Your task to perform on an android device: change timer sound Image 0: 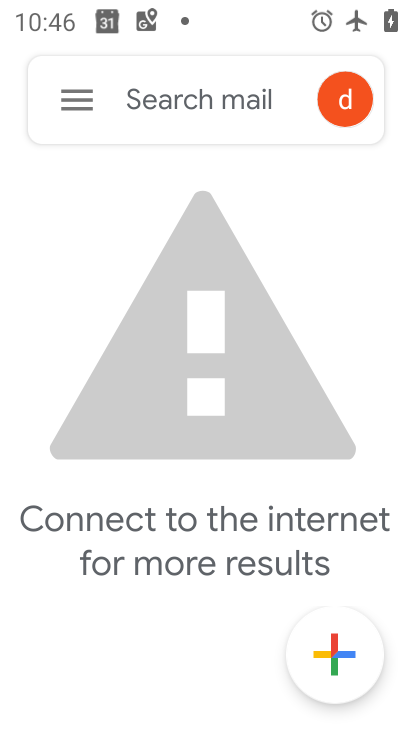
Step 0: press home button
Your task to perform on an android device: change timer sound Image 1: 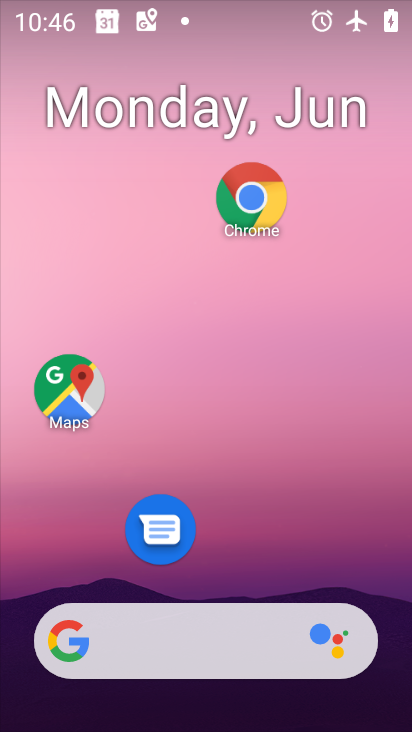
Step 1: drag from (223, 546) to (189, 129)
Your task to perform on an android device: change timer sound Image 2: 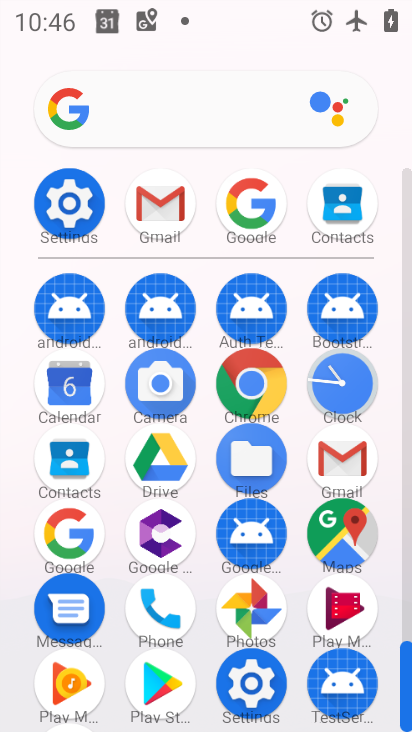
Step 2: click (358, 399)
Your task to perform on an android device: change timer sound Image 3: 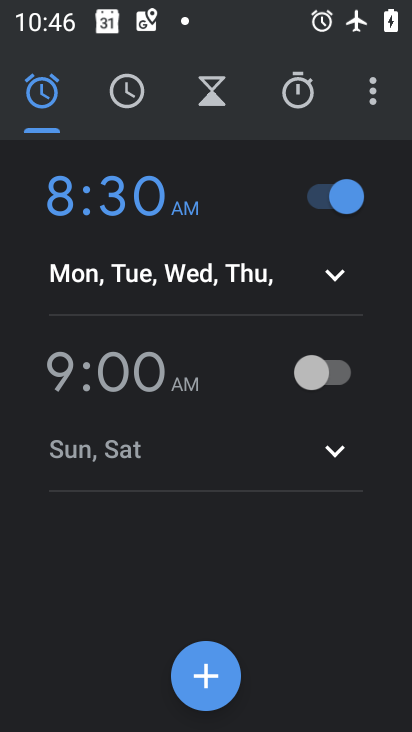
Step 3: click (363, 94)
Your task to perform on an android device: change timer sound Image 4: 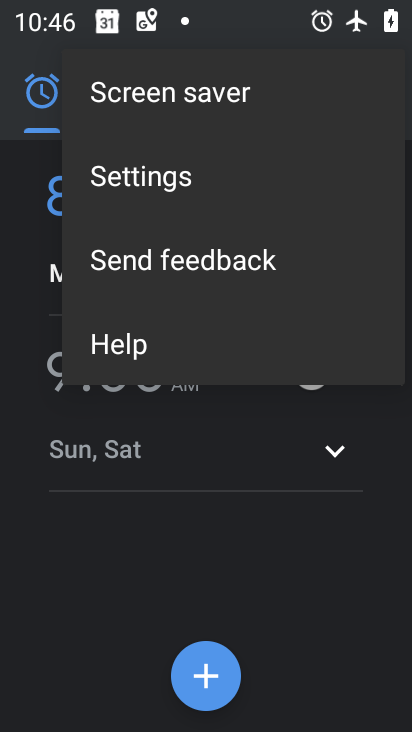
Step 4: click (190, 175)
Your task to perform on an android device: change timer sound Image 5: 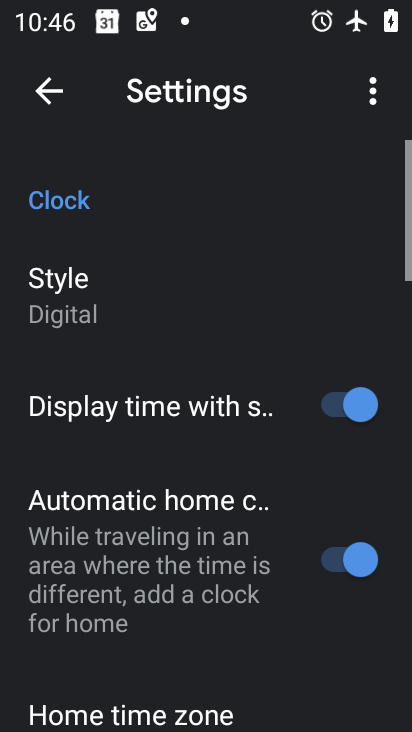
Step 5: drag from (238, 487) to (241, 192)
Your task to perform on an android device: change timer sound Image 6: 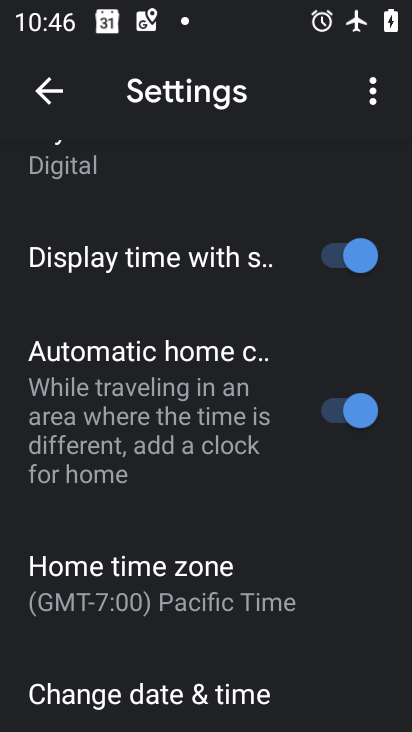
Step 6: drag from (208, 573) to (212, 164)
Your task to perform on an android device: change timer sound Image 7: 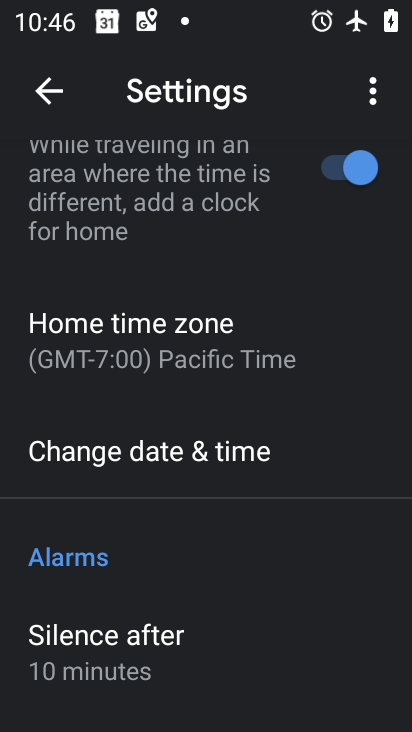
Step 7: drag from (141, 615) to (178, 303)
Your task to perform on an android device: change timer sound Image 8: 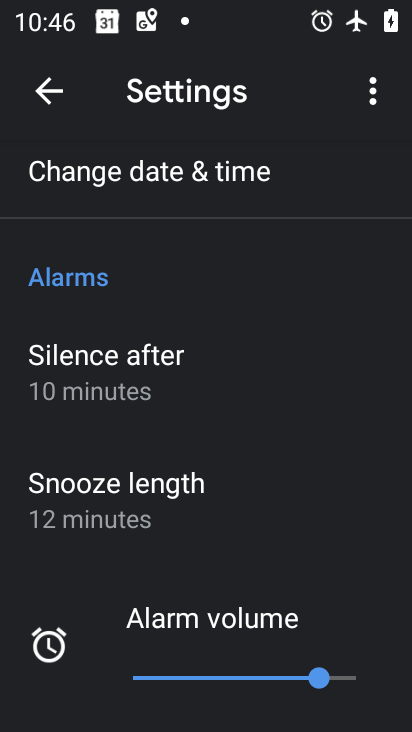
Step 8: drag from (182, 616) to (213, 187)
Your task to perform on an android device: change timer sound Image 9: 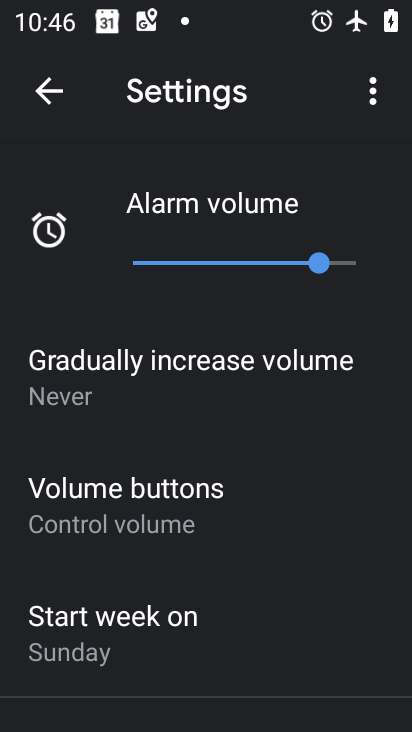
Step 9: drag from (213, 558) to (269, 307)
Your task to perform on an android device: change timer sound Image 10: 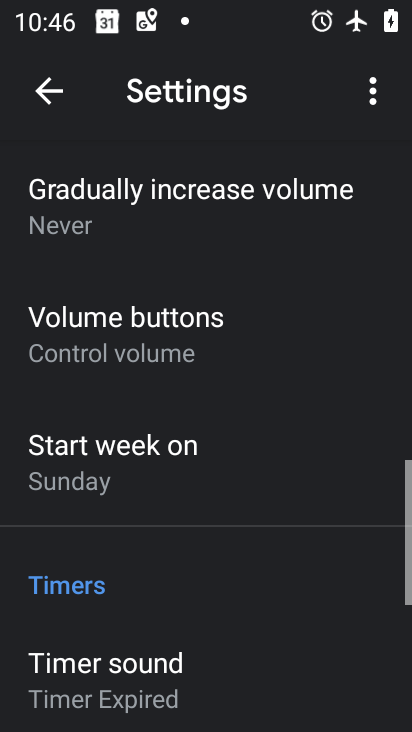
Step 10: drag from (234, 580) to (242, 326)
Your task to perform on an android device: change timer sound Image 11: 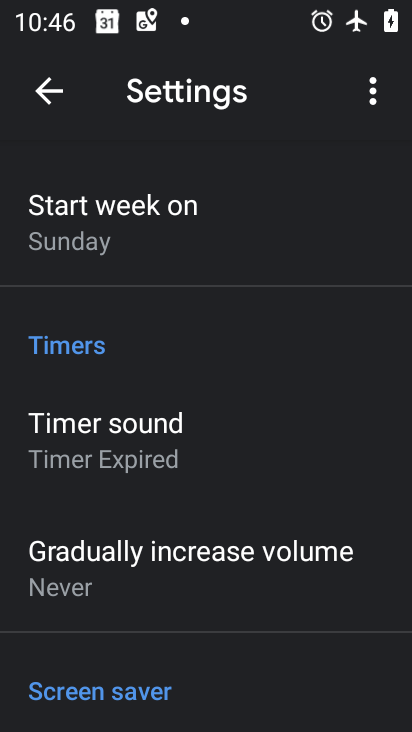
Step 11: click (158, 448)
Your task to perform on an android device: change timer sound Image 12: 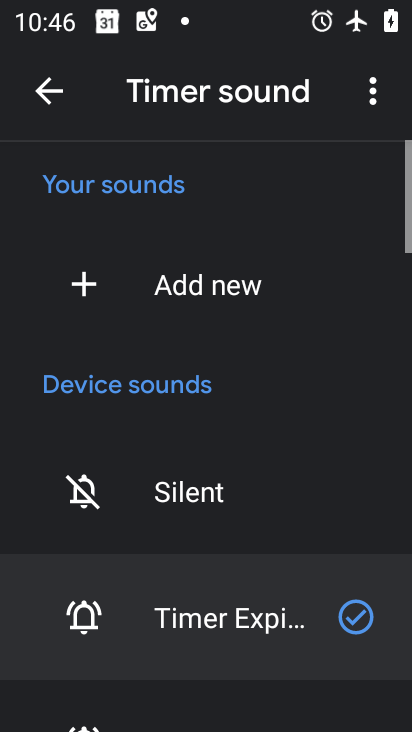
Step 12: drag from (197, 565) to (263, 257)
Your task to perform on an android device: change timer sound Image 13: 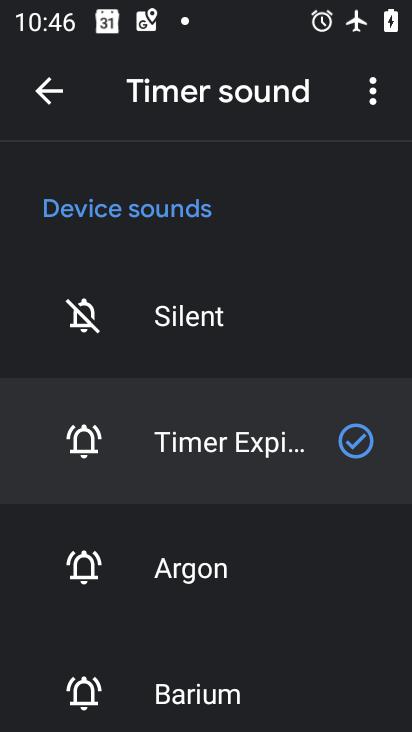
Step 13: click (203, 684)
Your task to perform on an android device: change timer sound Image 14: 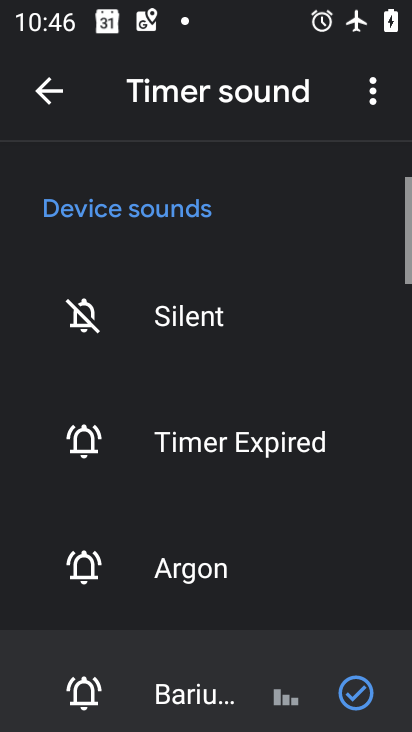
Step 14: task complete